Your task to perform on an android device: change the clock display to digital Image 0: 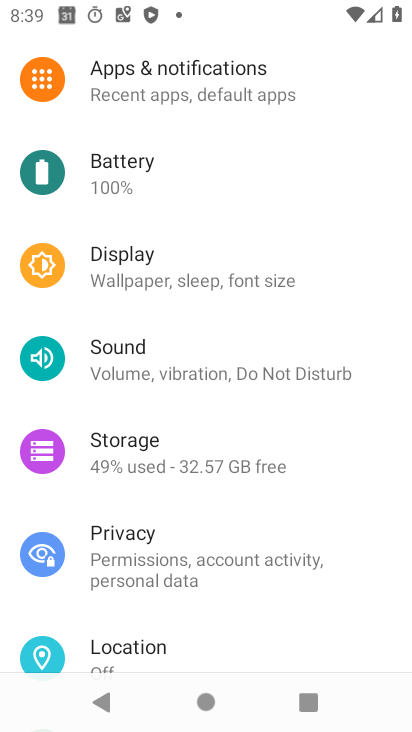
Step 0: press home button
Your task to perform on an android device: change the clock display to digital Image 1: 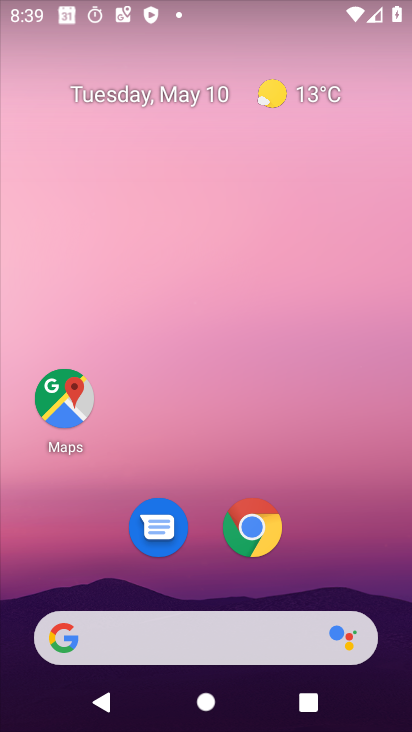
Step 1: drag from (13, 662) to (232, 146)
Your task to perform on an android device: change the clock display to digital Image 2: 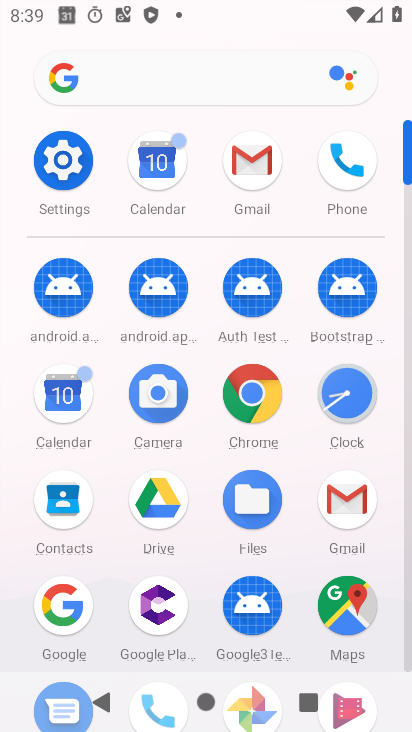
Step 2: click (337, 398)
Your task to perform on an android device: change the clock display to digital Image 3: 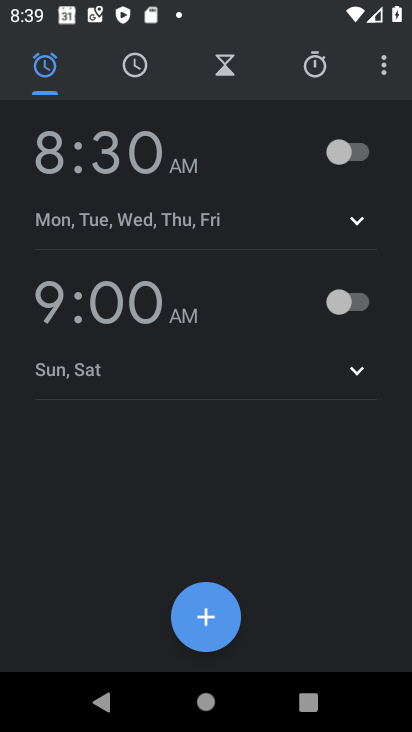
Step 3: click (379, 63)
Your task to perform on an android device: change the clock display to digital Image 4: 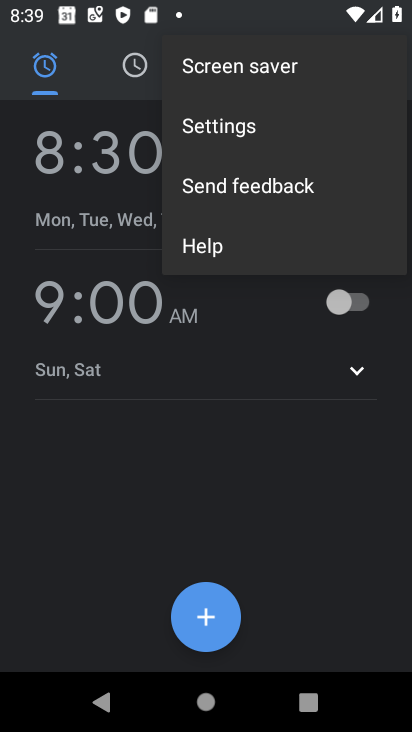
Step 4: click (262, 132)
Your task to perform on an android device: change the clock display to digital Image 5: 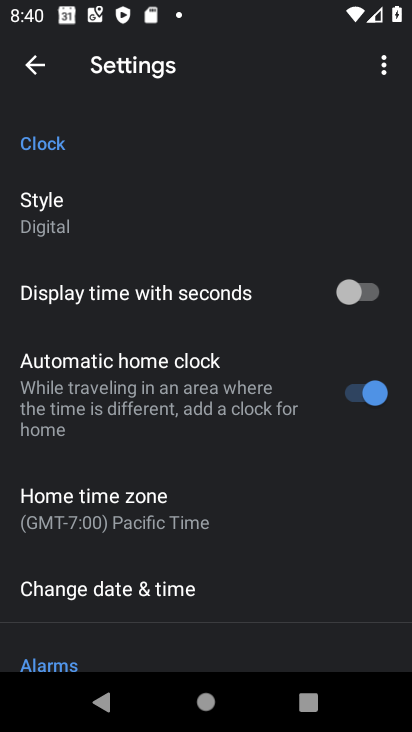
Step 5: click (25, 226)
Your task to perform on an android device: change the clock display to digital Image 6: 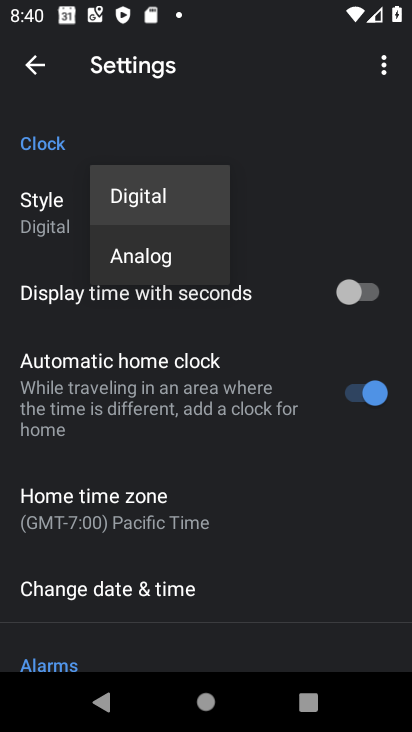
Step 6: click (160, 202)
Your task to perform on an android device: change the clock display to digital Image 7: 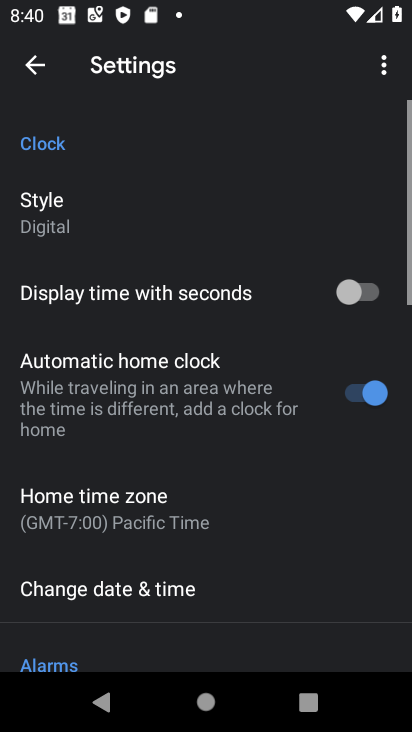
Step 7: task complete